Your task to perform on an android device: Go to Amazon Image 0: 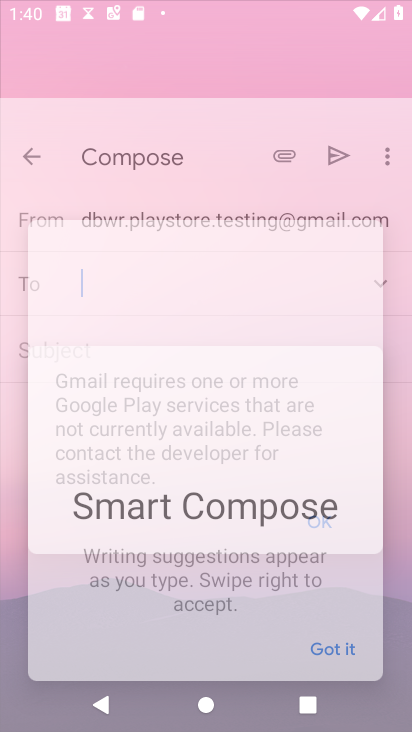
Step 0: press home button
Your task to perform on an android device: Go to Amazon Image 1: 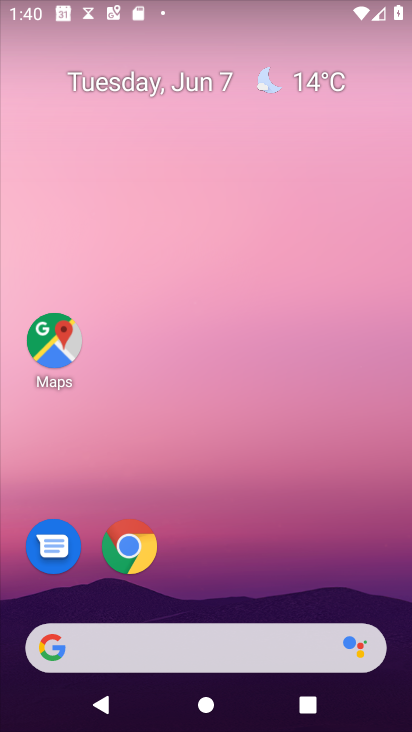
Step 1: click (48, 663)
Your task to perform on an android device: Go to Amazon Image 2: 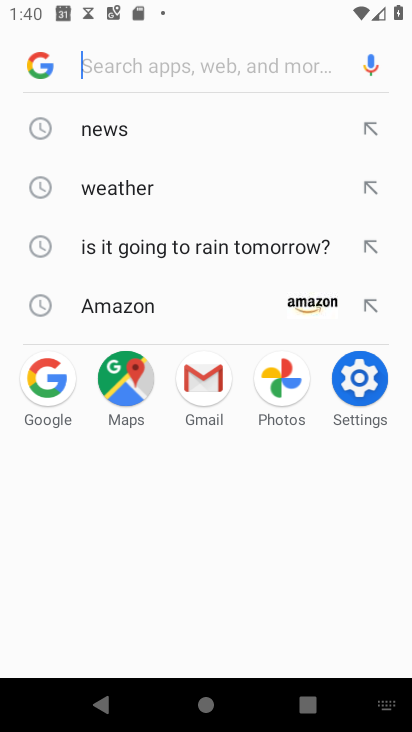
Step 2: click (107, 303)
Your task to perform on an android device: Go to Amazon Image 3: 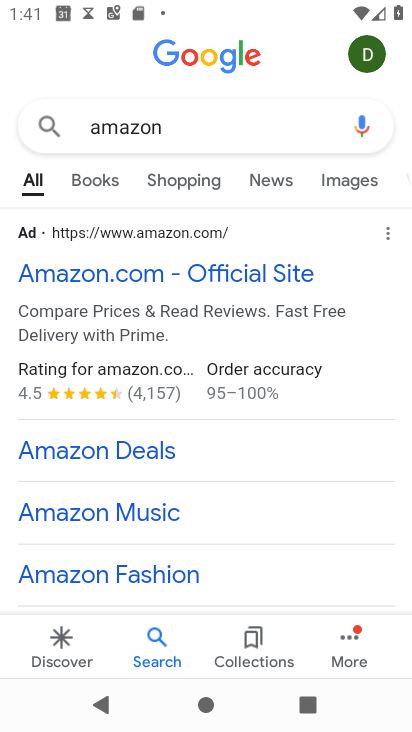
Step 3: click (114, 272)
Your task to perform on an android device: Go to Amazon Image 4: 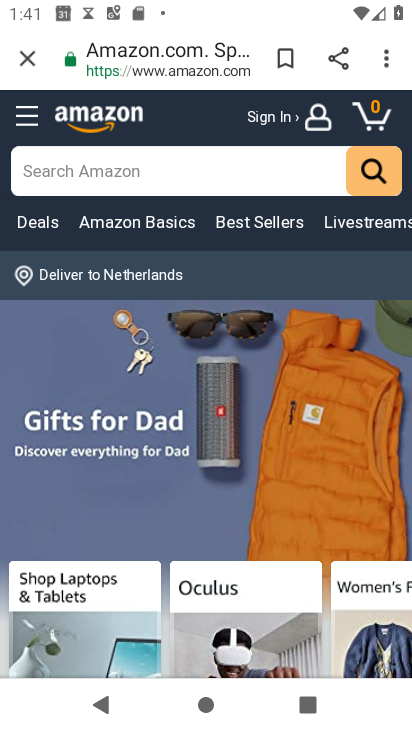
Step 4: task complete